Your task to perform on an android device: turn off data saver in the chrome app Image 0: 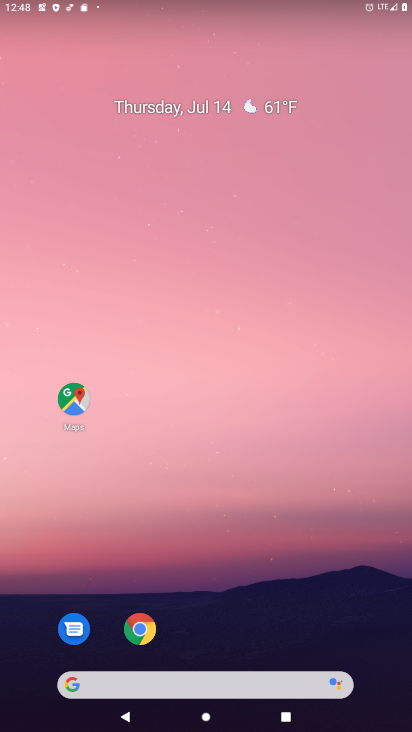
Step 0: click (142, 629)
Your task to perform on an android device: turn off data saver in the chrome app Image 1: 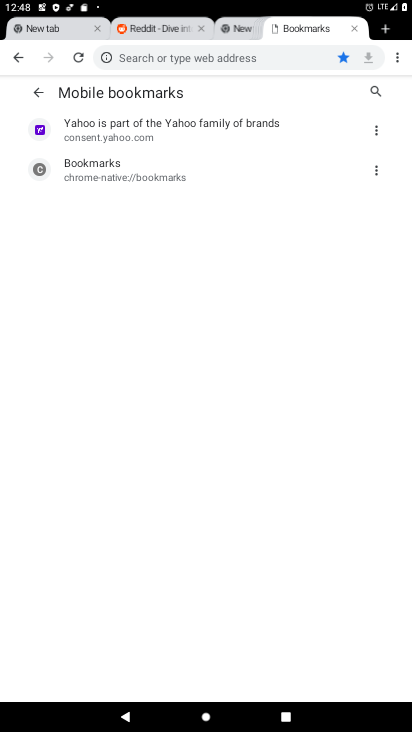
Step 1: click (398, 58)
Your task to perform on an android device: turn off data saver in the chrome app Image 2: 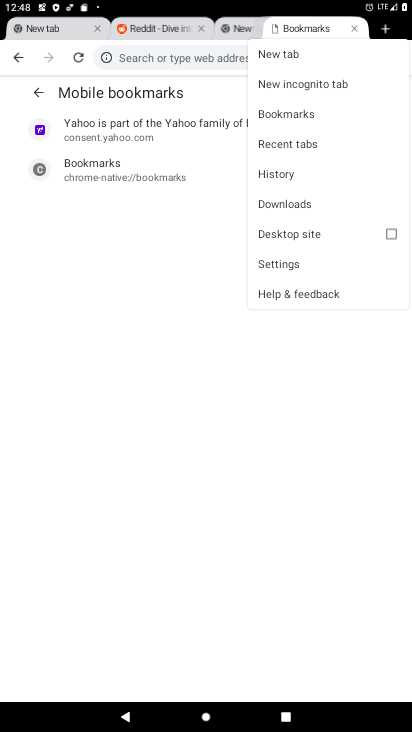
Step 2: click (280, 265)
Your task to perform on an android device: turn off data saver in the chrome app Image 3: 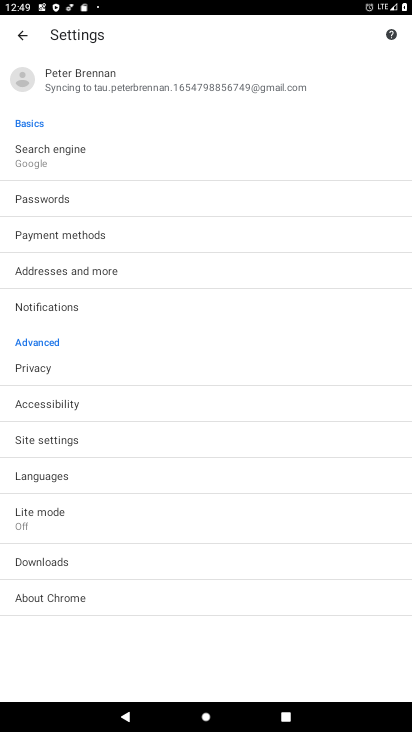
Step 3: click (57, 511)
Your task to perform on an android device: turn off data saver in the chrome app Image 4: 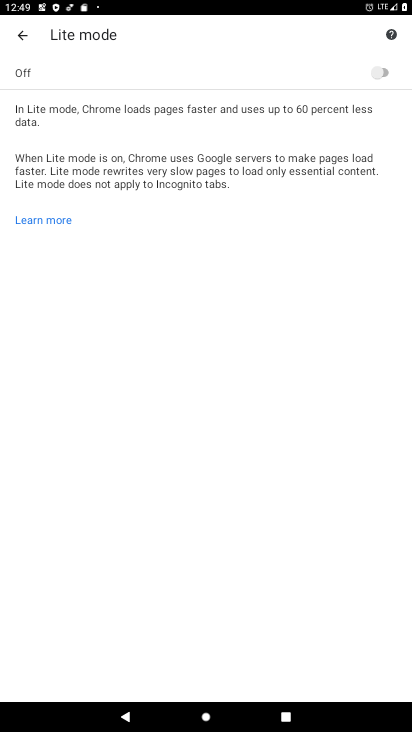
Step 4: task complete